Your task to perform on an android device: check battery use Image 0: 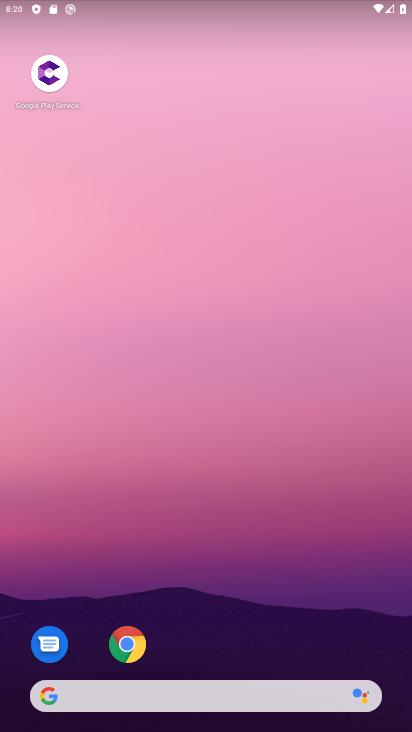
Step 0: drag from (238, 632) to (177, 0)
Your task to perform on an android device: check battery use Image 1: 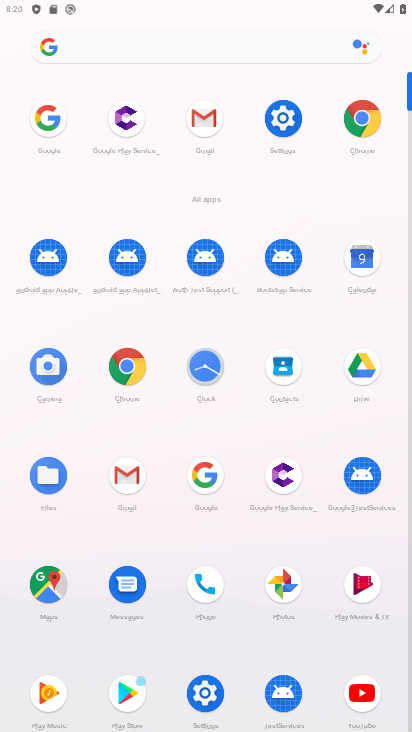
Step 1: drag from (230, 608) to (287, 8)
Your task to perform on an android device: check battery use Image 2: 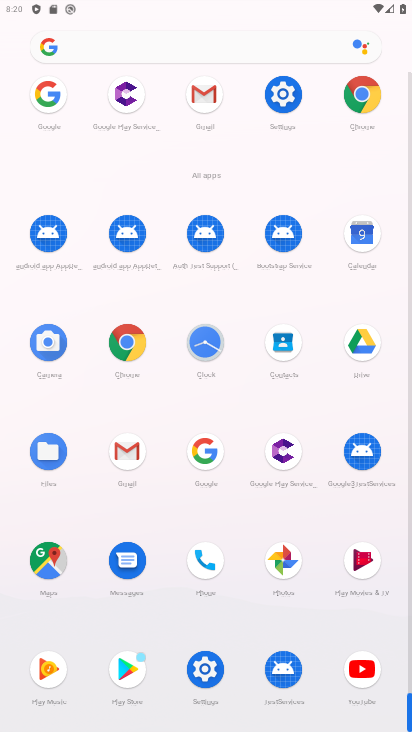
Step 2: click (199, 684)
Your task to perform on an android device: check battery use Image 3: 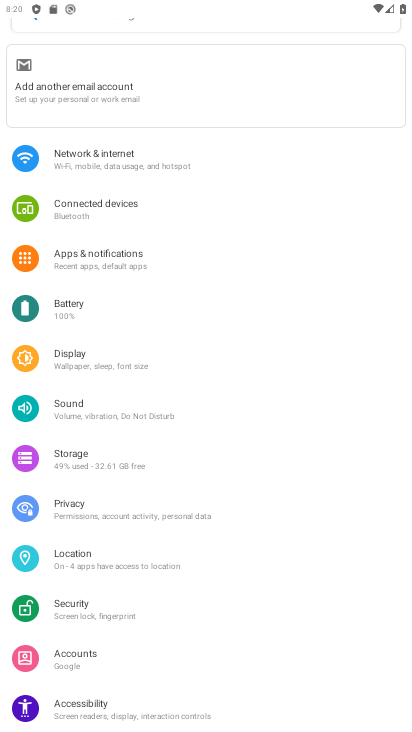
Step 3: click (66, 313)
Your task to perform on an android device: check battery use Image 4: 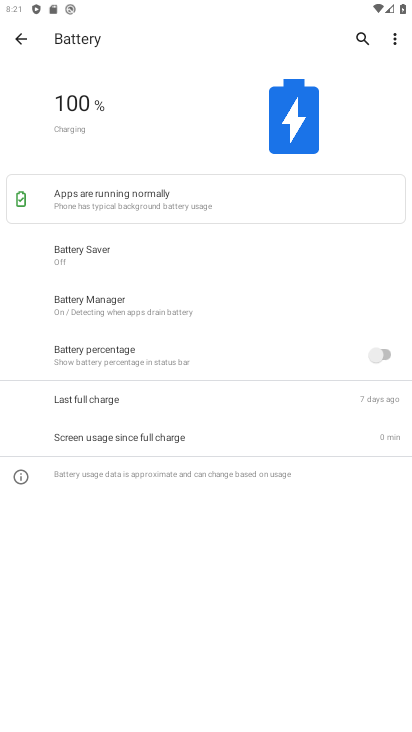
Step 4: task complete